Your task to perform on an android device: turn off notifications settings in the gmail app Image 0: 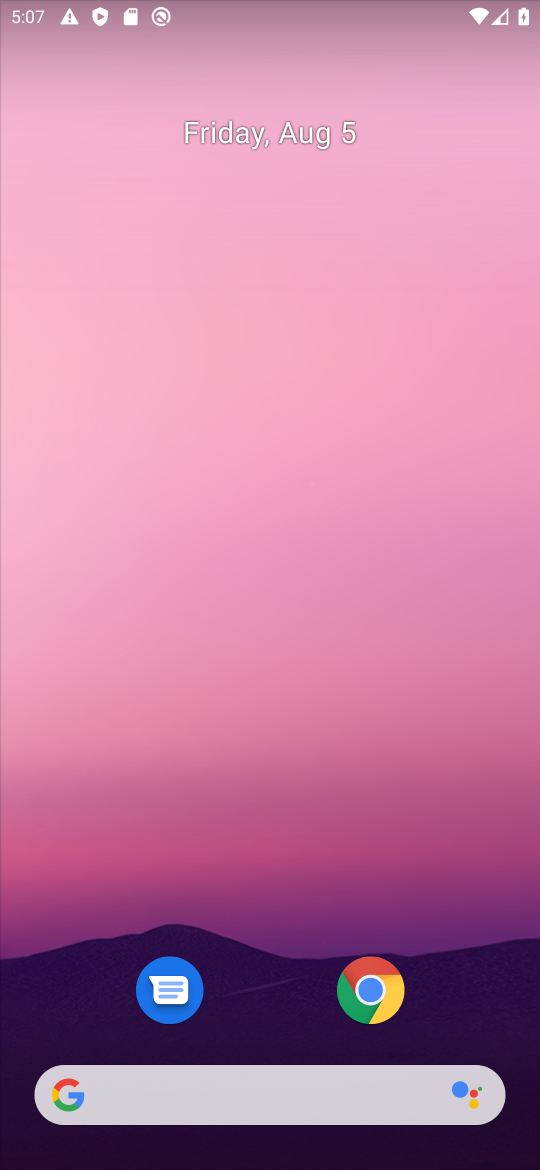
Step 0: drag from (245, 1053) to (256, 577)
Your task to perform on an android device: turn off notifications settings in the gmail app Image 1: 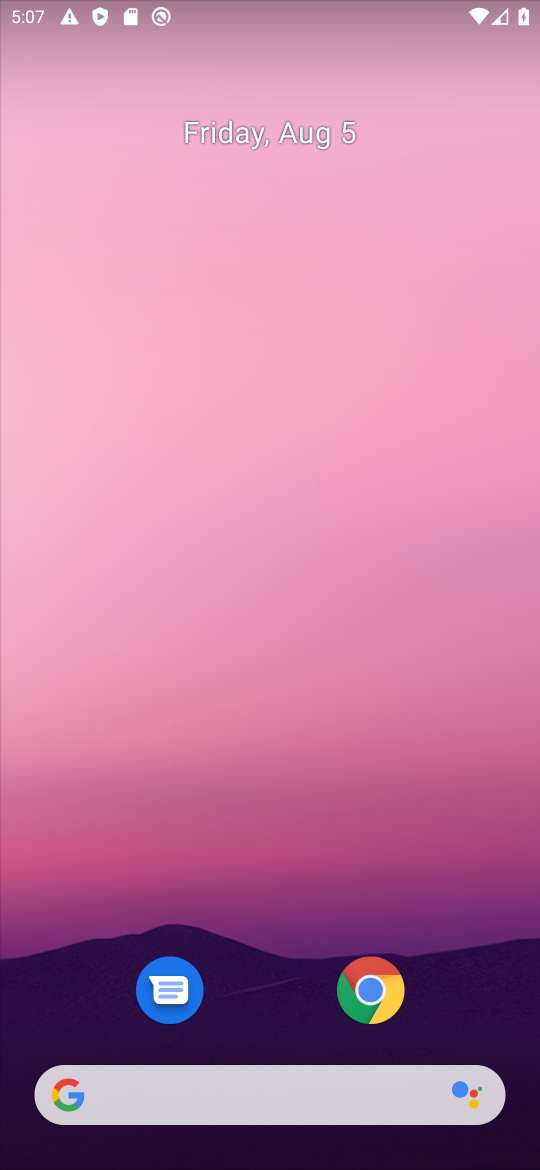
Step 1: drag from (280, 1120) to (256, 241)
Your task to perform on an android device: turn off notifications settings in the gmail app Image 2: 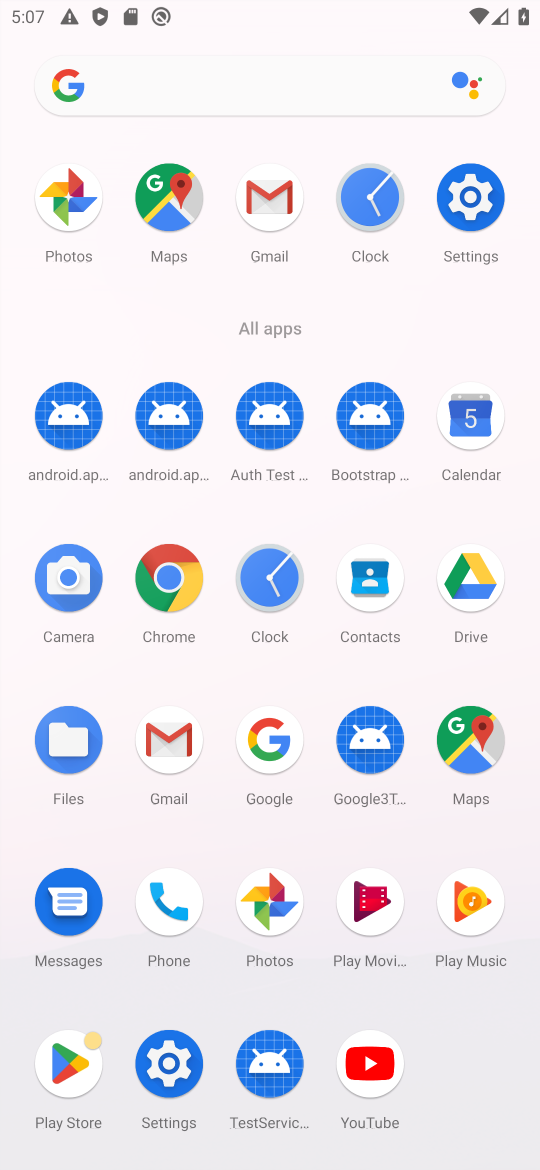
Step 2: click (173, 742)
Your task to perform on an android device: turn off notifications settings in the gmail app Image 3: 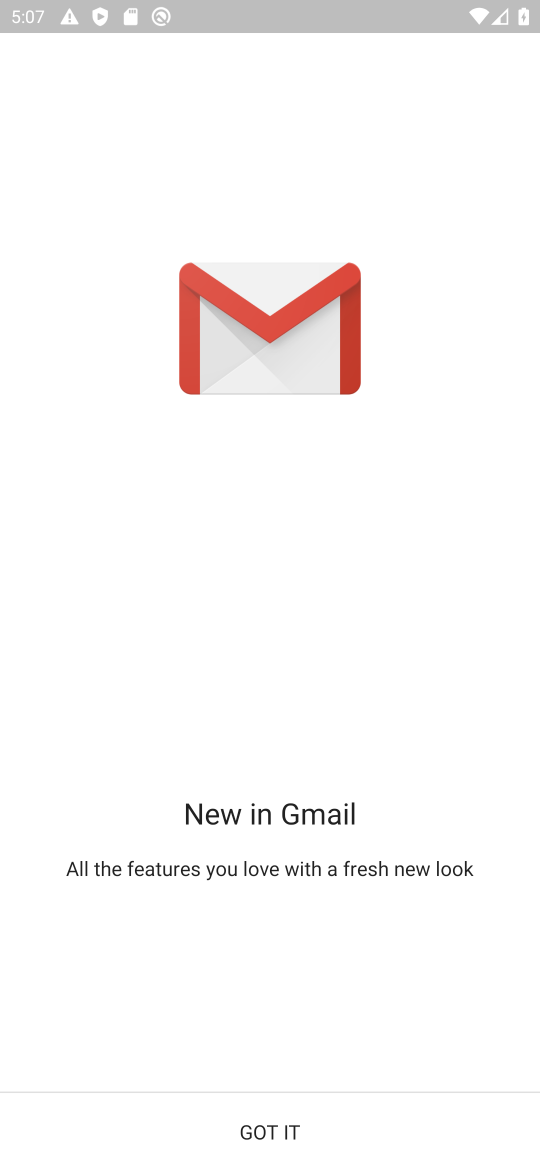
Step 3: click (281, 1122)
Your task to perform on an android device: turn off notifications settings in the gmail app Image 4: 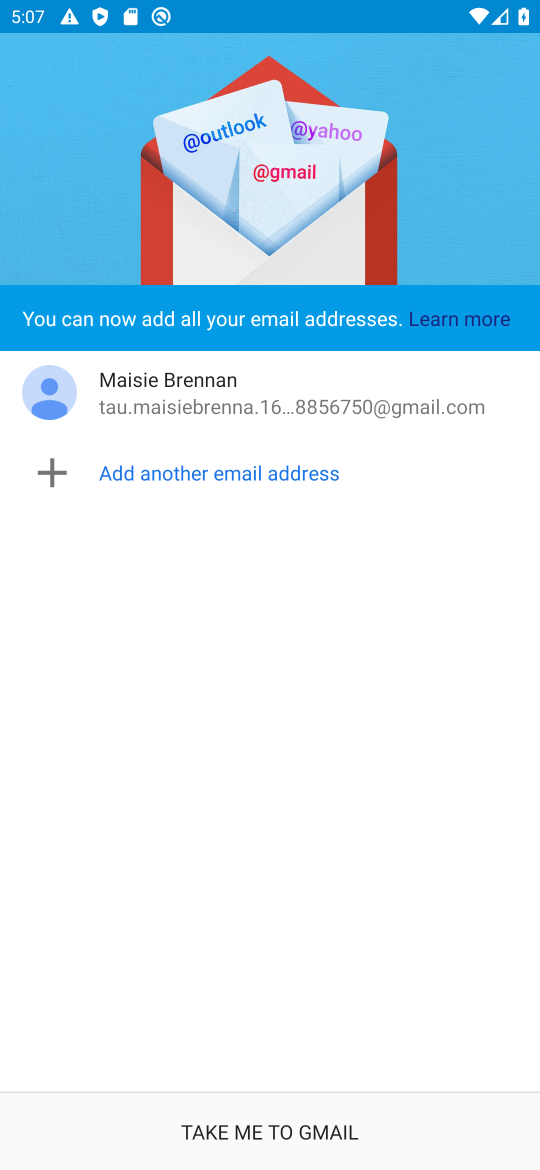
Step 4: click (281, 1122)
Your task to perform on an android device: turn off notifications settings in the gmail app Image 5: 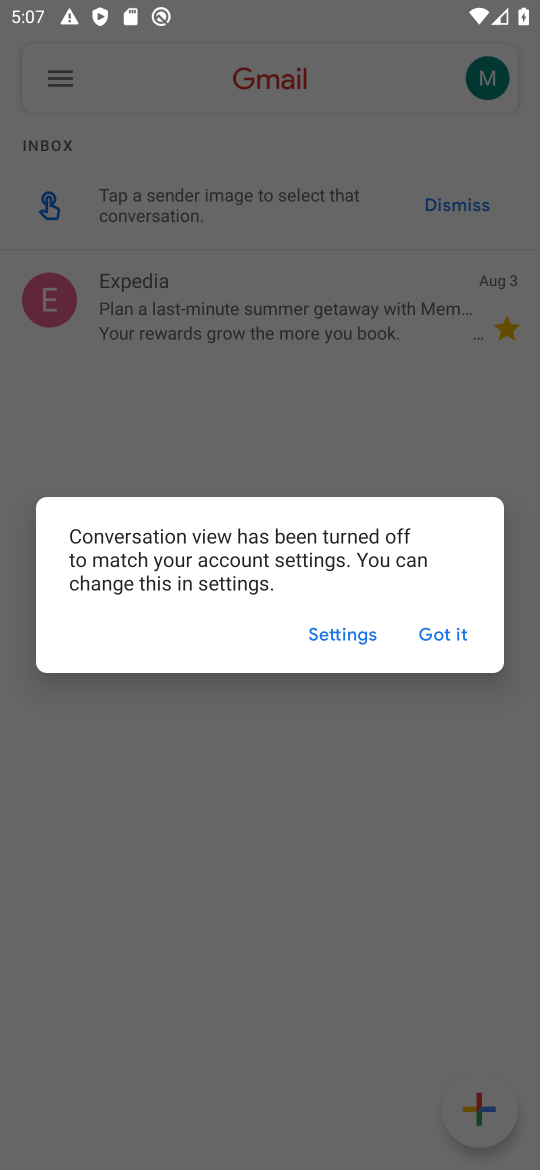
Step 5: click (449, 639)
Your task to perform on an android device: turn off notifications settings in the gmail app Image 6: 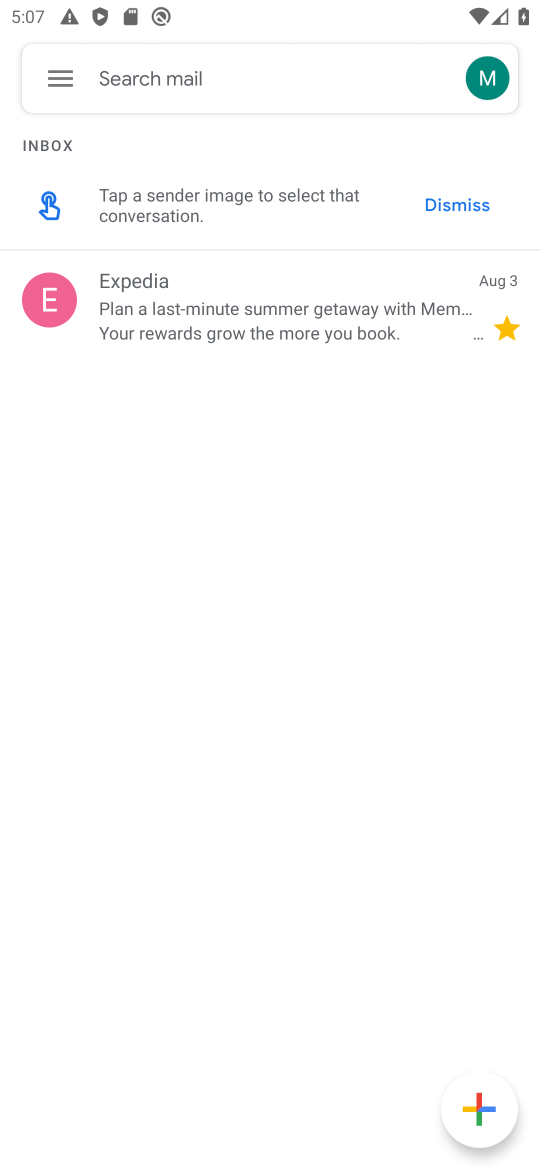
Step 6: click (487, 89)
Your task to perform on an android device: turn off notifications settings in the gmail app Image 7: 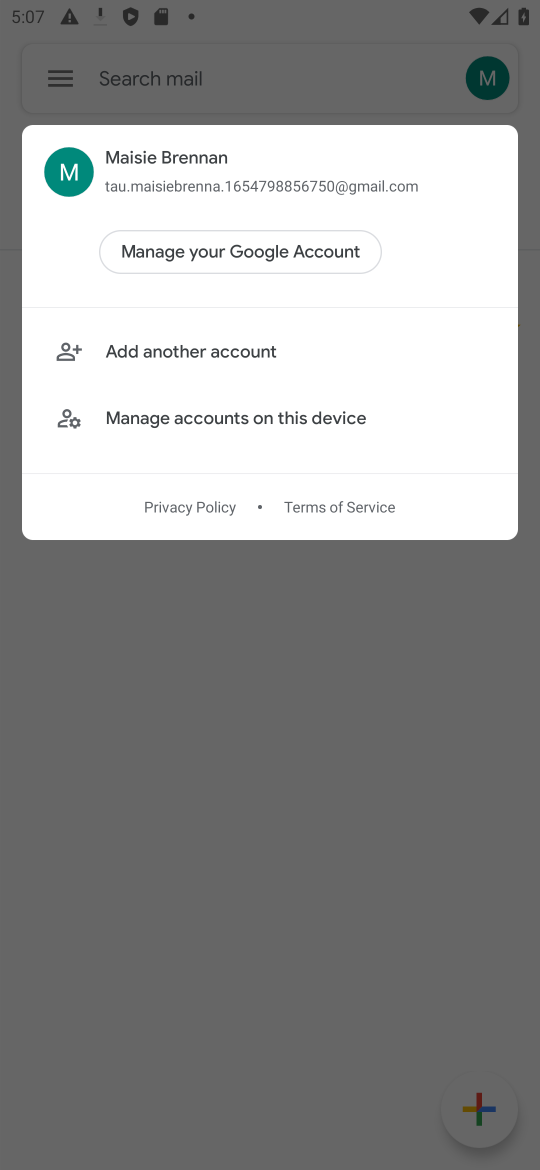
Step 7: click (205, 570)
Your task to perform on an android device: turn off notifications settings in the gmail app Image 8: 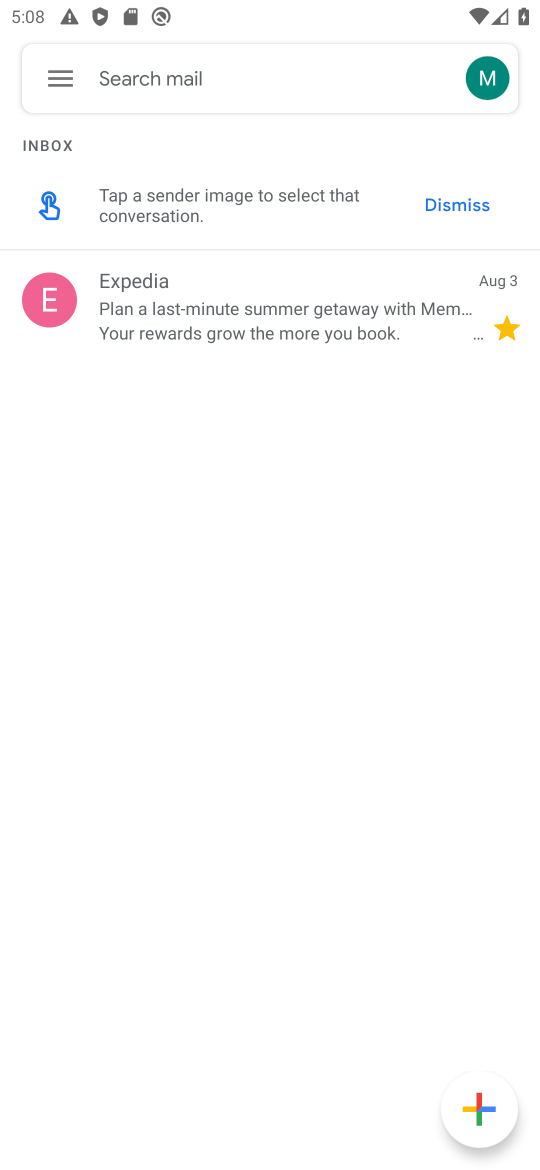
Step 8: click (64, 72)
Your task to perform on an android device: turn off notifications settings in the gmail app Image 9: 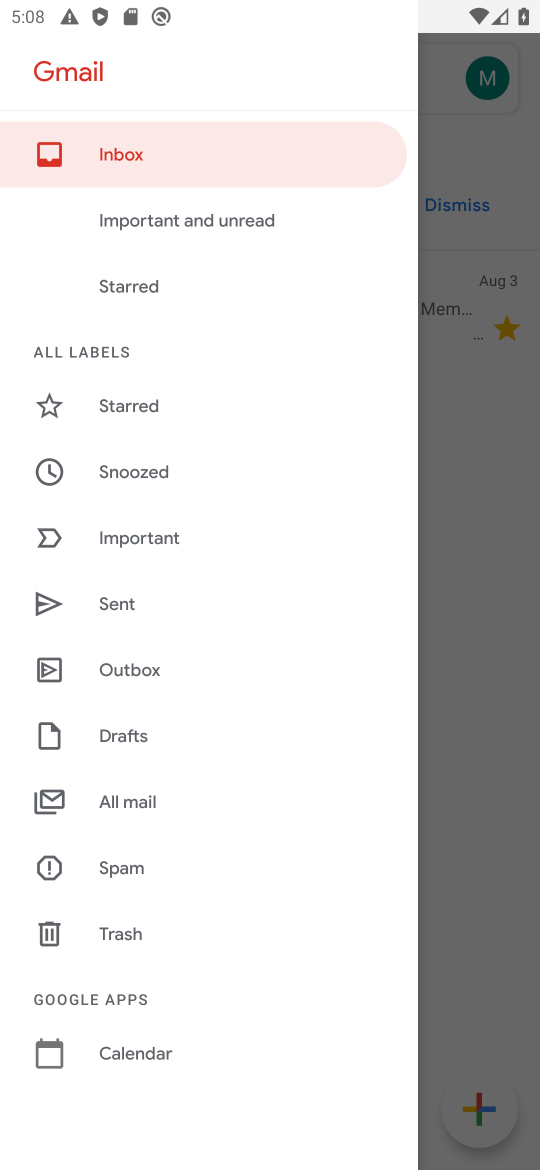
Step 9: drag from (121, 1052) to (117, 621)
Your task to perform on an android device: turn off notifications settings in the gmail app Image 10: 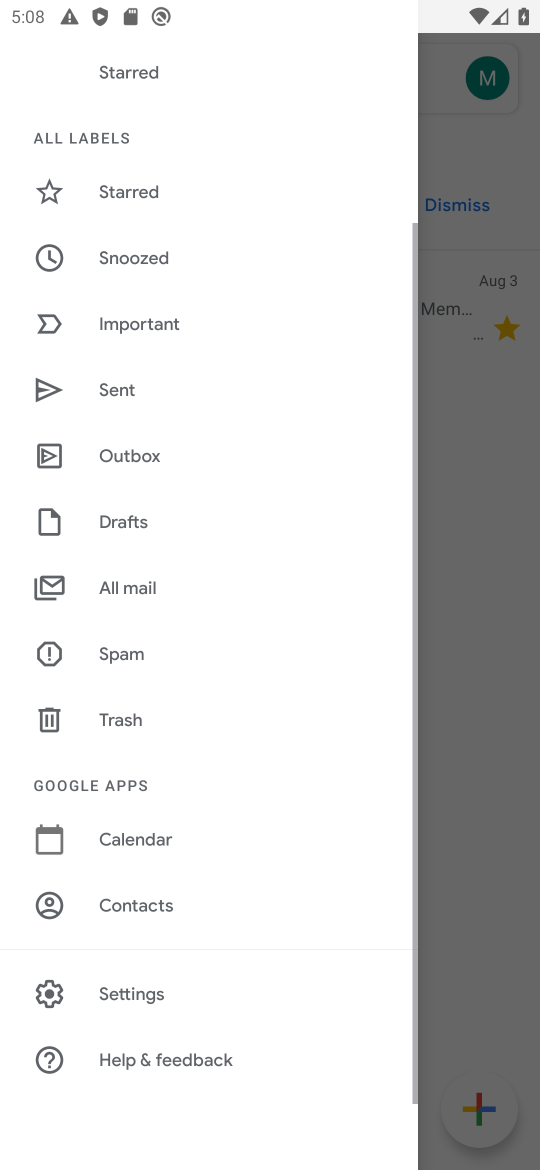
Step 10: click (118, 997)
Your task to perform on an android device: turn off notifications settings in the gmail app Image 11: 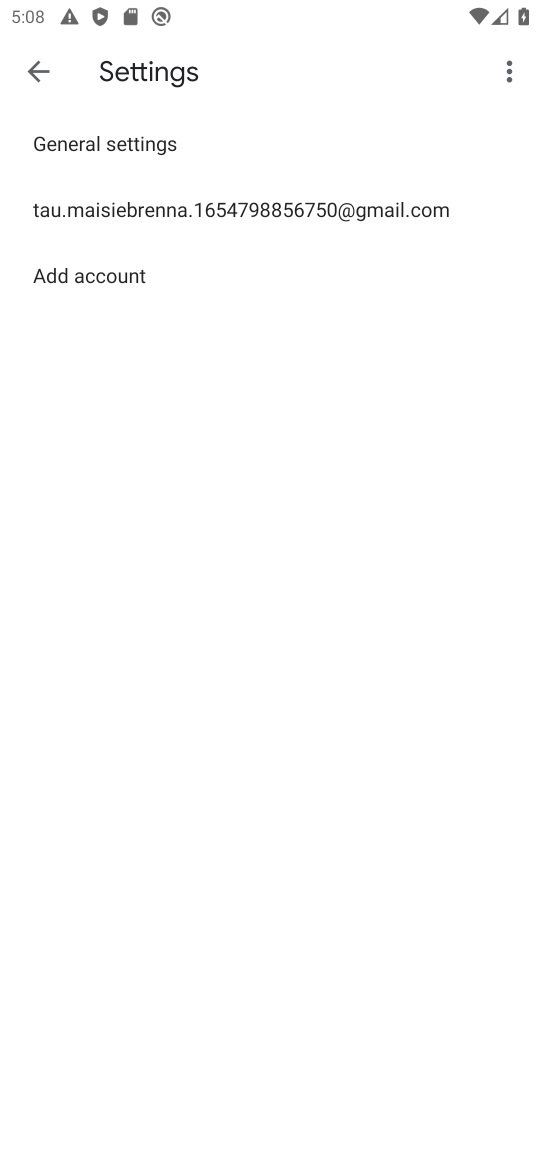
Step 11: click (115, 146)
Your task to perform on an android device: turn off notifications settings in the gmail app Image 12: 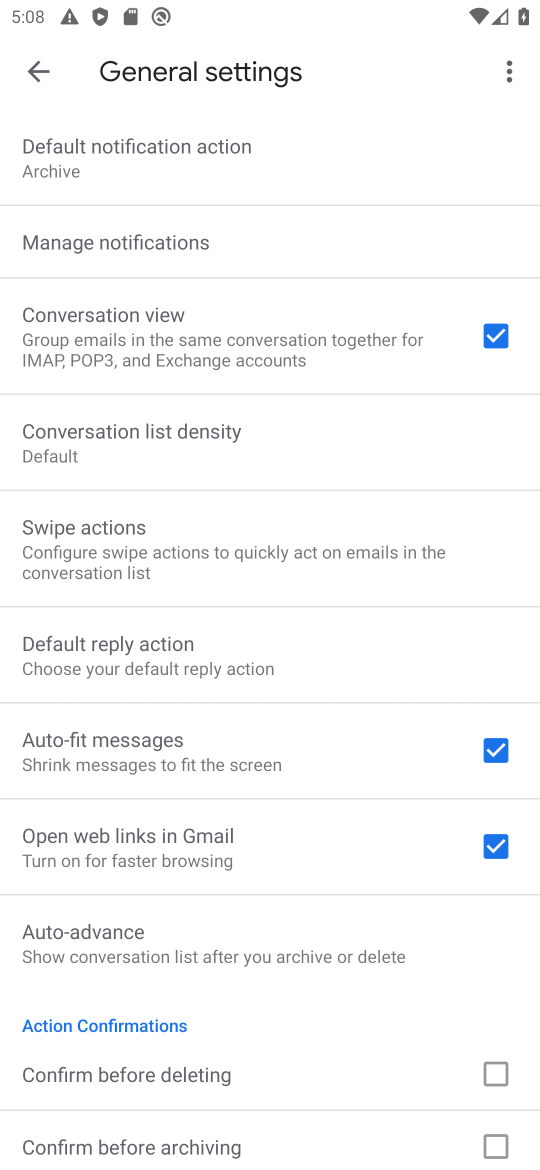
Step 12: click (140, 244)
Your task to perform on an android device: turn off notifications settings in the gmail app Image 13: 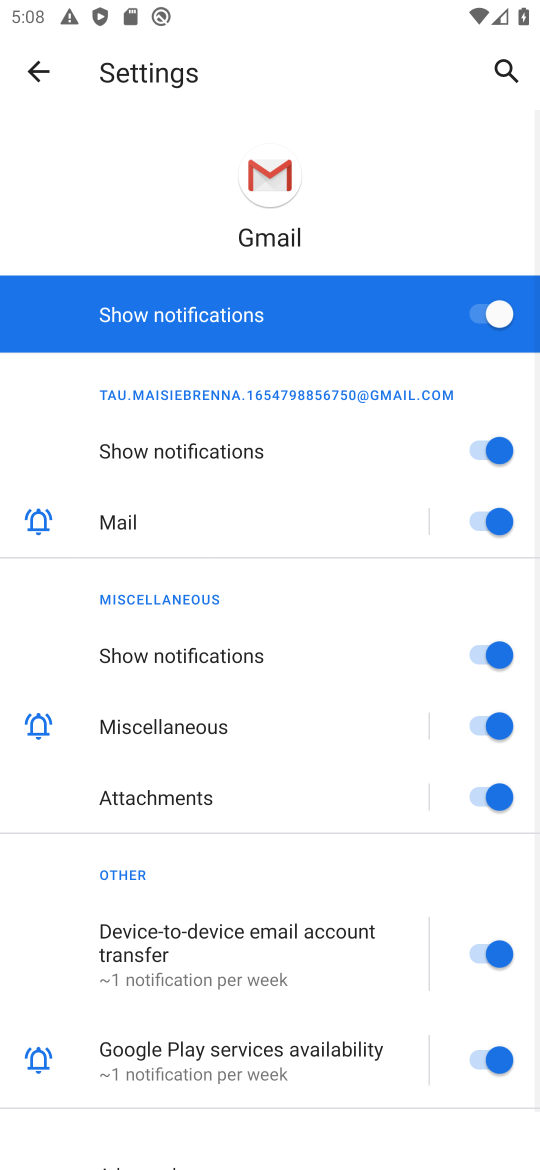
Step 13: click (499, 315)
Your task to perform on an android device: turn off notifications settings in the gmail app Image 14: 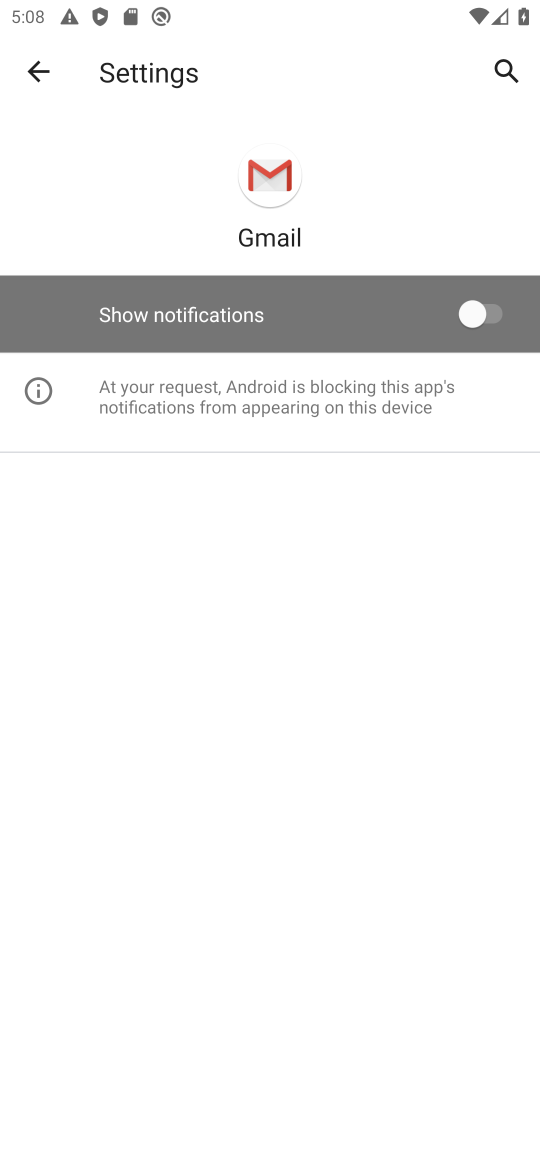
Step 14: task complete